Your task to perform on an android device: turn on wifi Image 0: 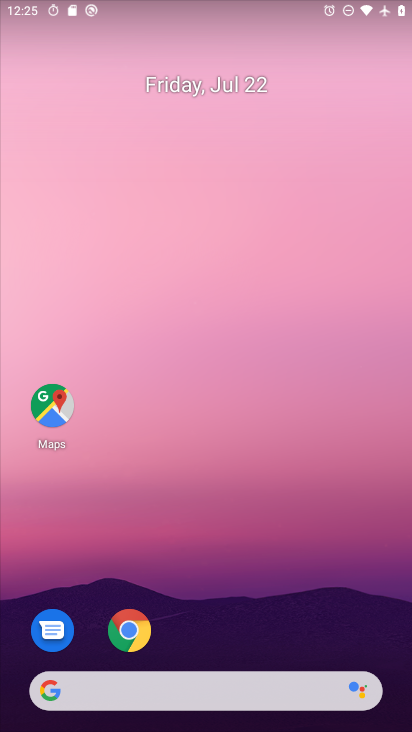
Step 0: press home button
Your task to perform on an android device: turn on wifi Image 1: 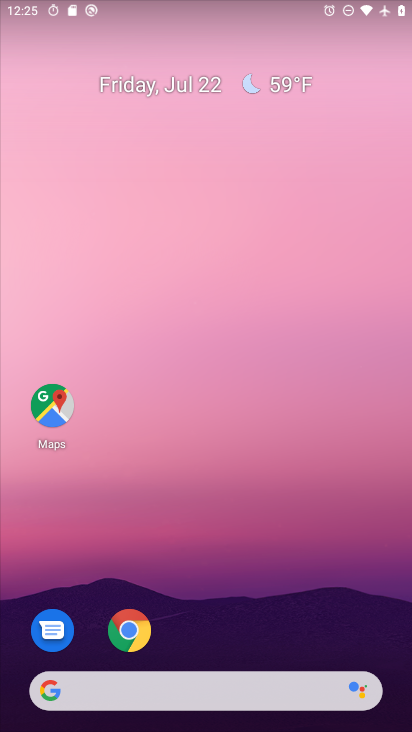
Step 1: task complete